Your task to perform on an android device: Open maps Image 0: 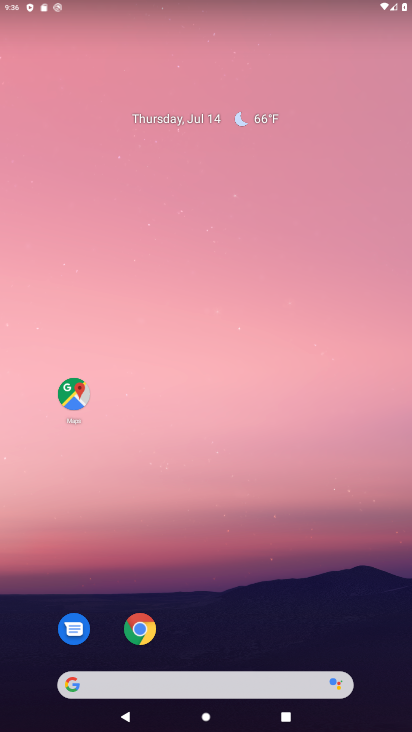
Step 0: click (74, 392)
Your task to perform on an android device: Open maps Image 1: 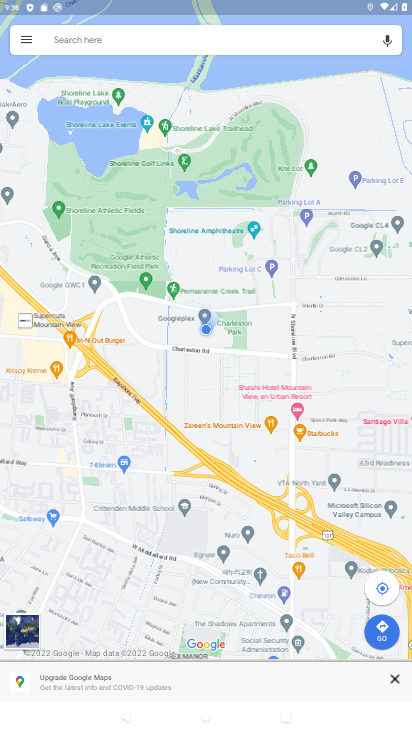
Step 1: task complete